Your task to perform on an android device: turn on airplane mode Image 0: 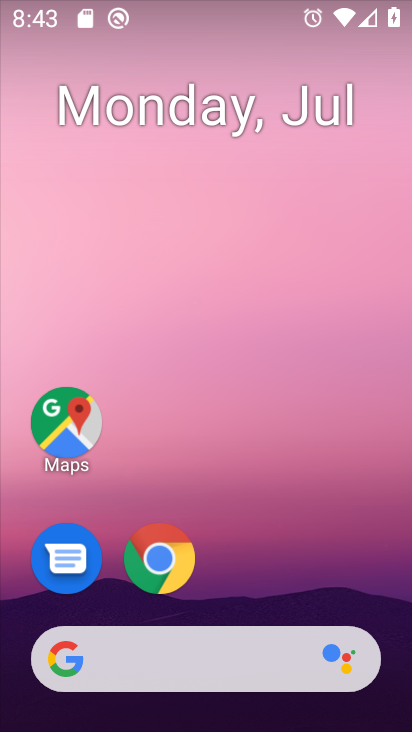
Step 0: drag from (367, 556) to (362, 69)
Your task to perform on an android device: turn on airplane mode Image 1: 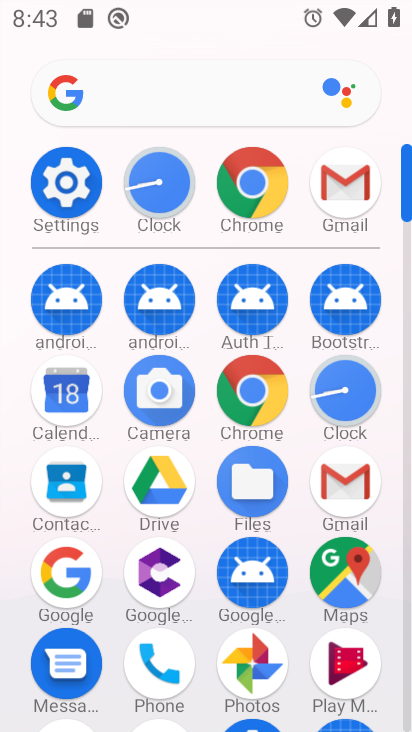
Step 1: click (82, 194)
Your task to perform on an android device: turn on airplane mode Image 2: 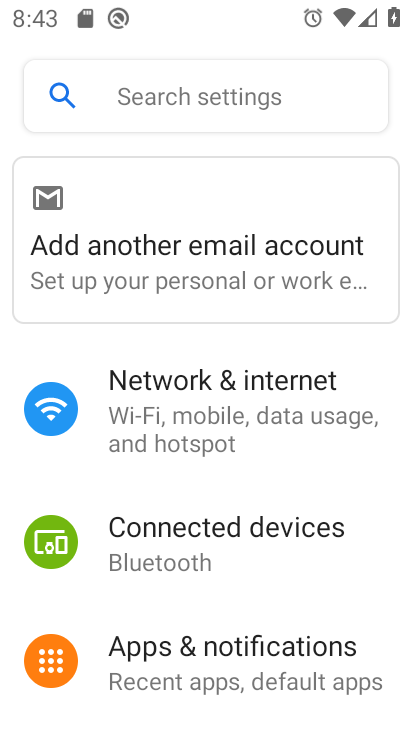
Step 2: click (225, 410)
Your task to perform on an android device: turn on airplane mode Image 3: 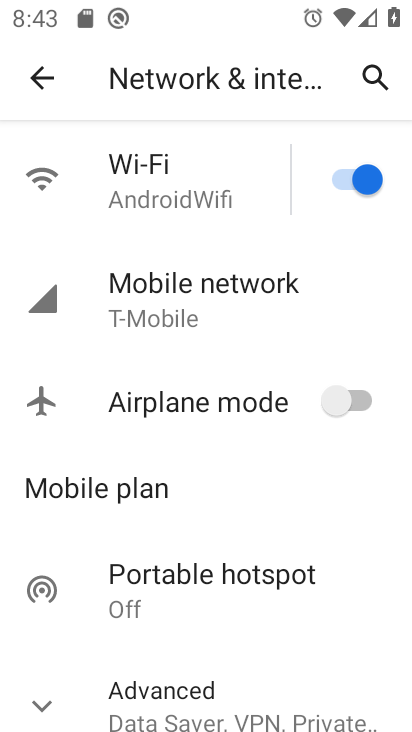
Step 3: click (340, 411)
Your task to perform on an android device: turn on airplane mode Image 4: 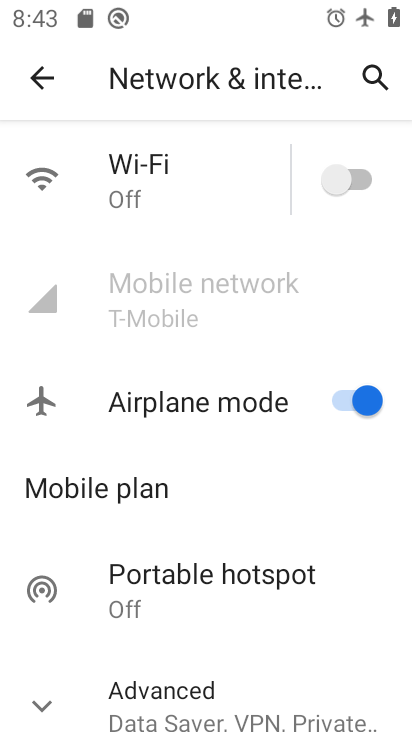
Step 4: task complete